Your task to perform on an android device: What's the weather? Image 0: 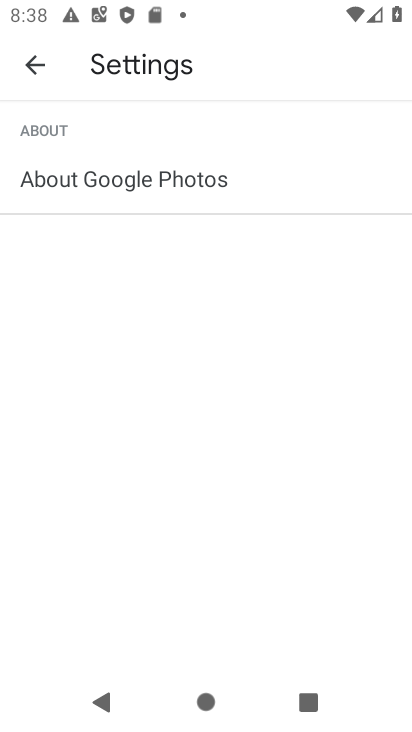
Step 0: press home button
Your task to perform on an android device: What's the weather? Image 1: 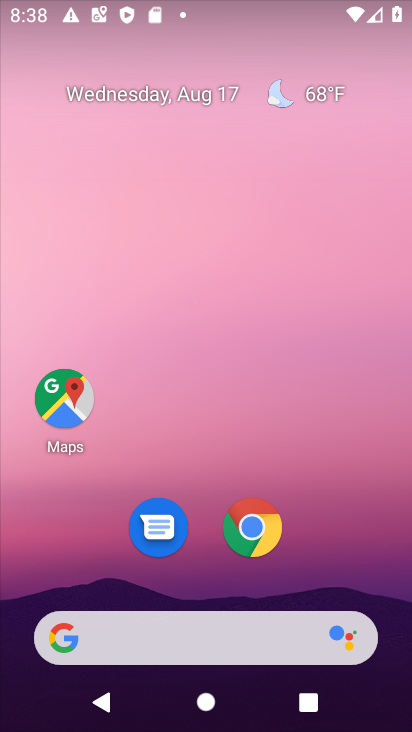
Step 1: click (341, 98)
Your task to perform on an android device: What's the weather? Image 2: 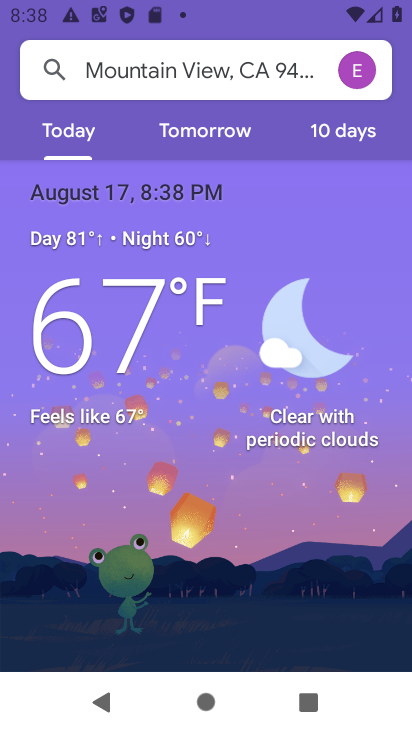
Step 2: task complete